Your task to perform on an android device: turn on wifi Image 0: 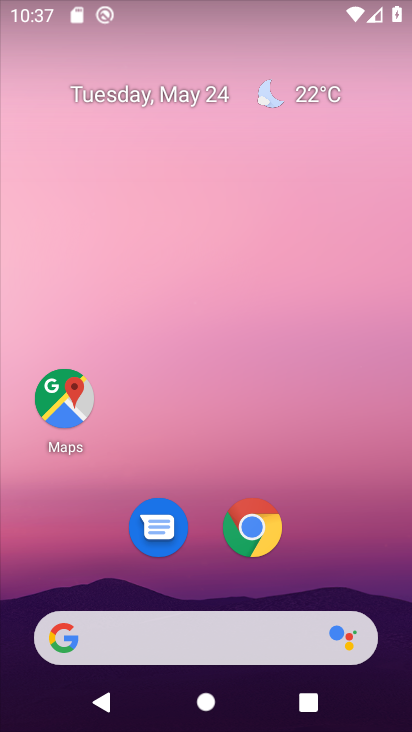
Step 0: drag from (166, 647) to (341, 63)
Your task to perform on an android device: turn on wifi Image 1: 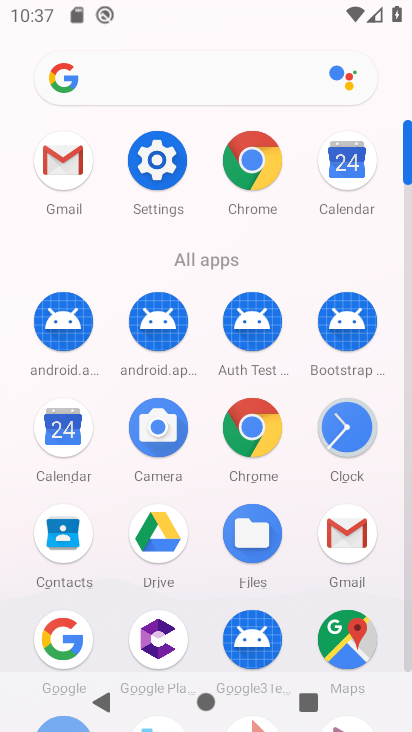
Step 1: click (162, 155)
Your task to perform on an android device: turn on wifi Image 2: 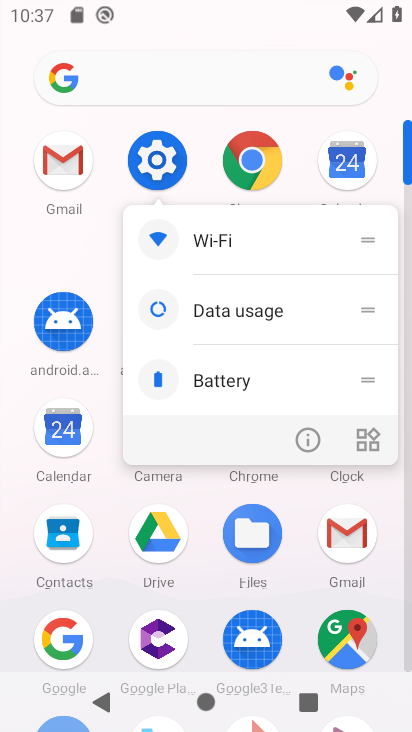
Step 2: click (151, 167)
Your task to perform on an android device: turn on wifi Image 3: 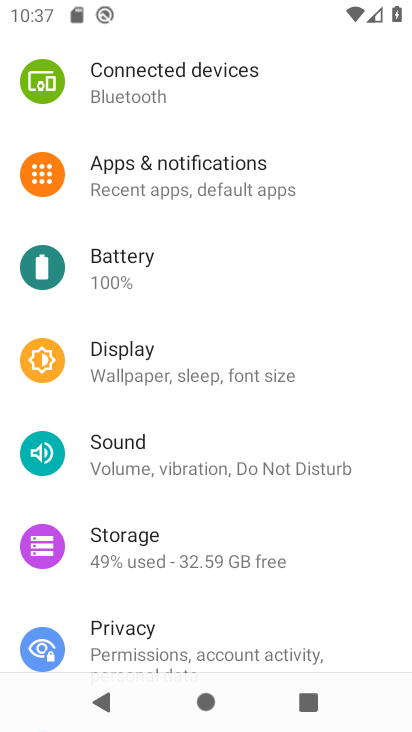
Step 3: drag from (340, 106) to (325, 548)
Your task to perform on an android device: turn on wifi Image 4: 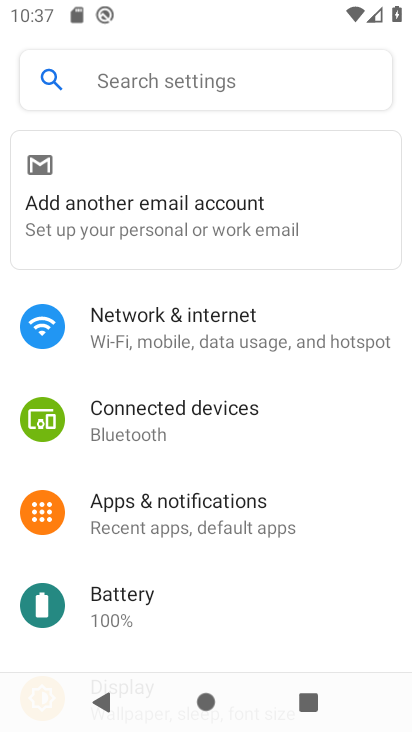
Step 4: click (202, 330)
Your task to perform on an android device: turn on wifi Image 5: 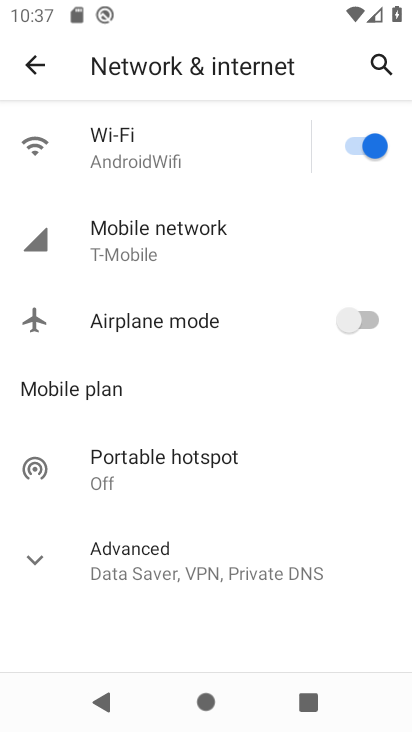
Step 5: task complete